Your task to perform on an android device: Open location settings Image 0: 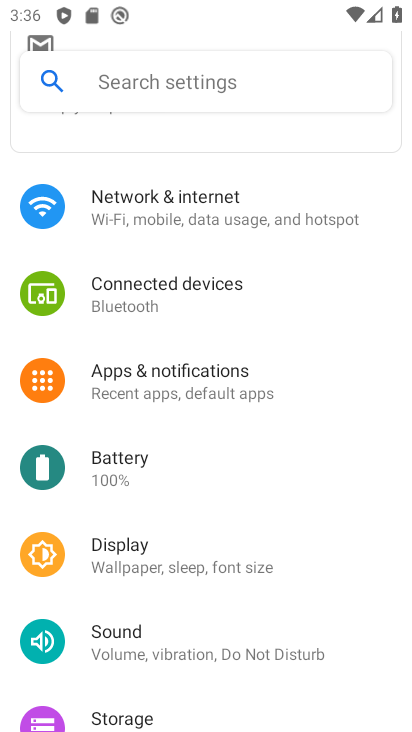
Step 0: drag from (220, 602) to (233, 82)
Your task to perform on an android device: Open location settings Image 1: 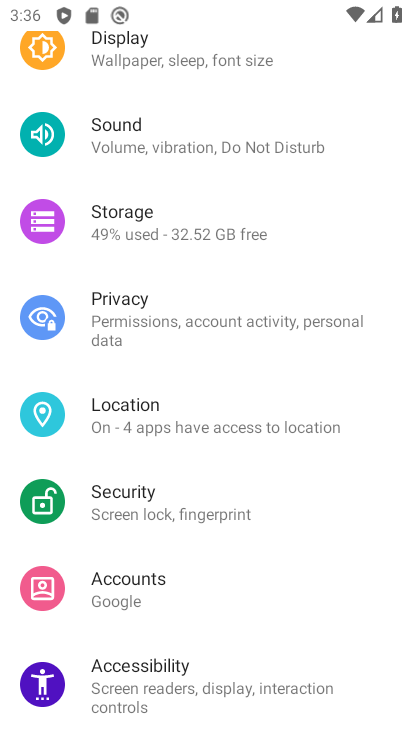
Step 1: click (174, 414)
Your task to perform on an android device: Open location settings Image 2: 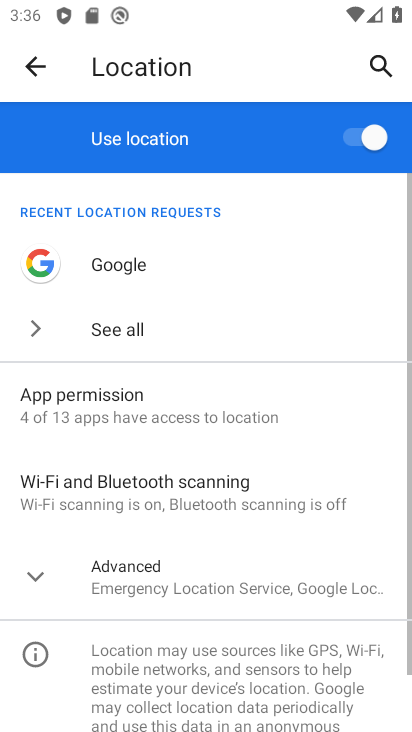
Step 2: task complete